Your task to perform on an android device: Go to Yahoo.com Image 0: 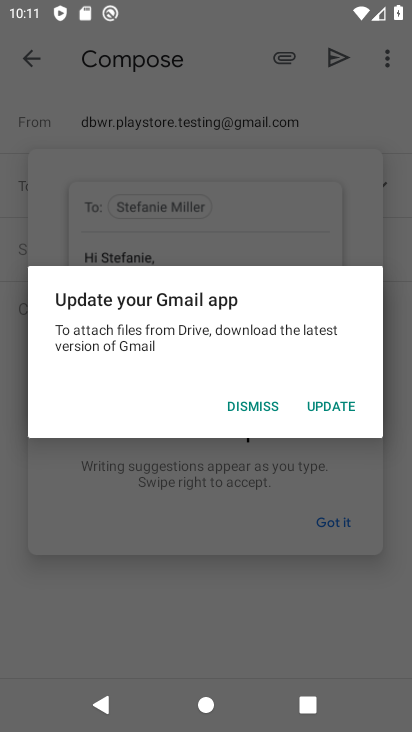
Step 0: press home button
Your task to perform on an android device: Go to Yahoo.com Image 1: 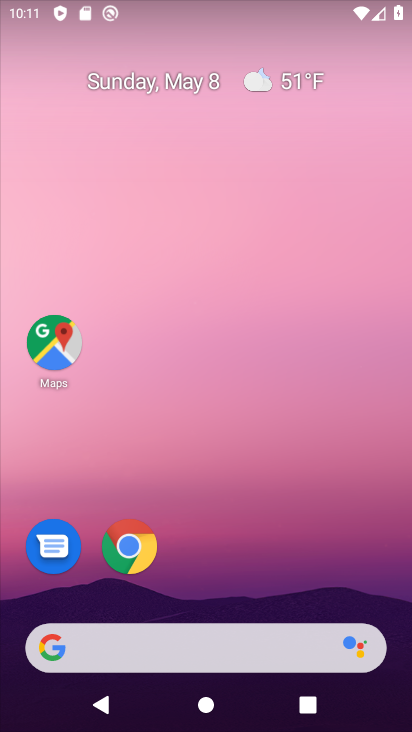
Step 1: click (129, 546)
Your task to perform on an android device: Go to Yahoo.com Image 2: 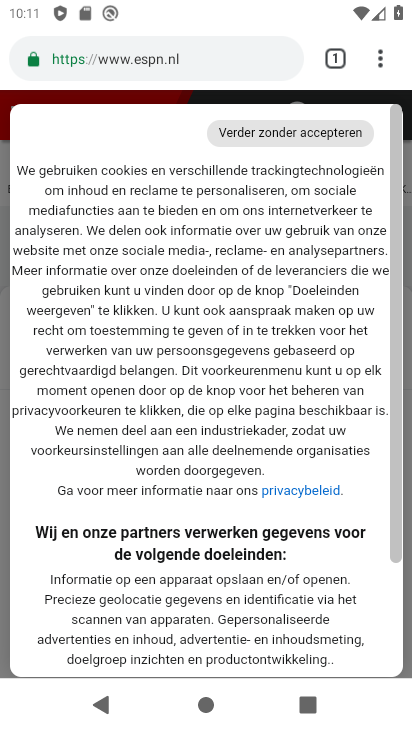
Step 2: click (193, 61)
Your task to perform on an android device: Go to Yahoo.com Image 3: 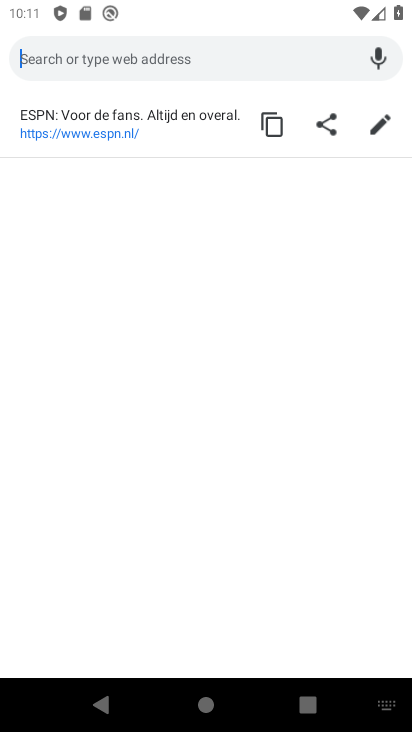
Step 3: type "Yahoo.com"
Your task to perform on an android device: Go to Yahoo.com Image 4: 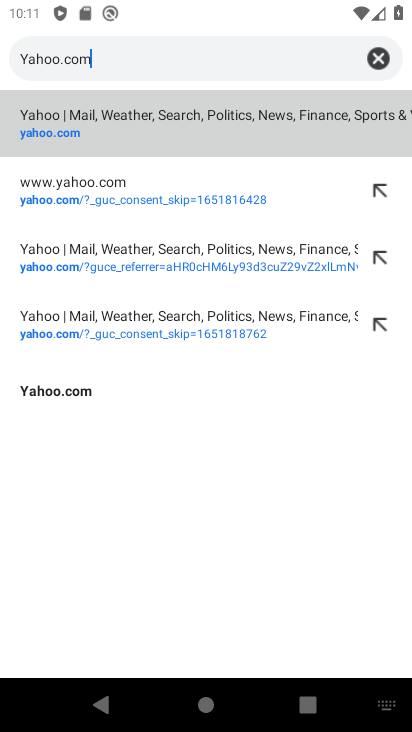
Step 4: click (63, 396)
Your task to perform on an android device: Go to Yahoo.com Image 5: 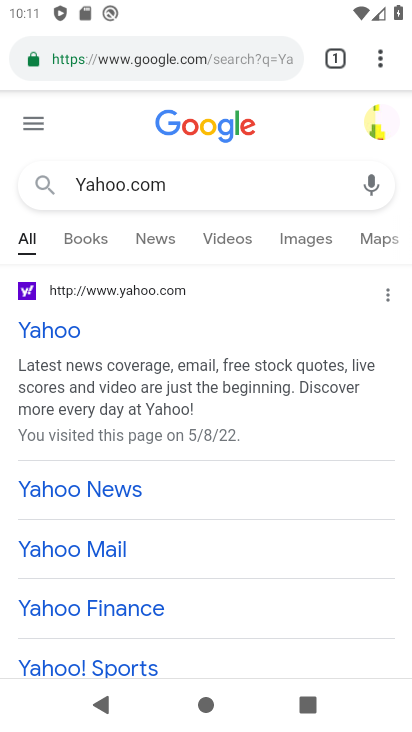
Step 5: click (50, 327)
Your task to perform on an android device: Go to Yahoo.com Image 6: 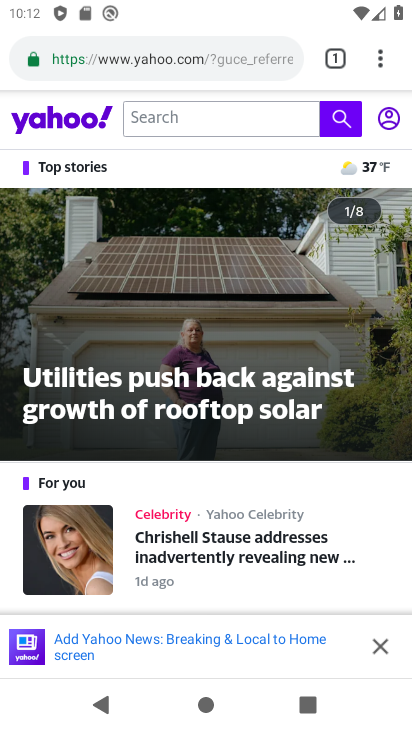
Step 6: task complete